Your task to perform on an android device: Go to Google Image 0: 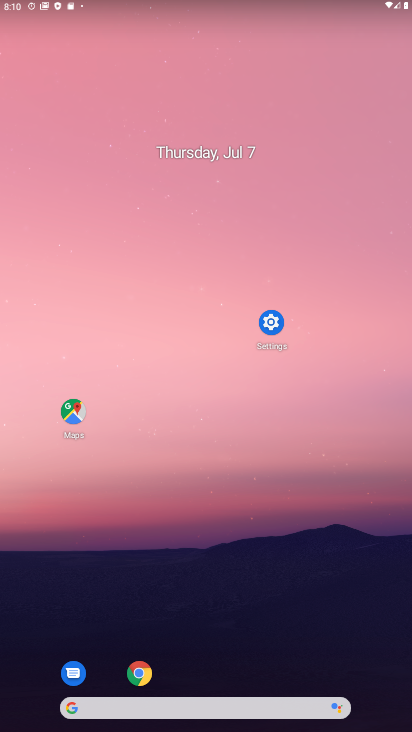
Step 0: drag from (268, 352) to (191, 149)
Your task to perform on an android device: Go to Google Image 1: 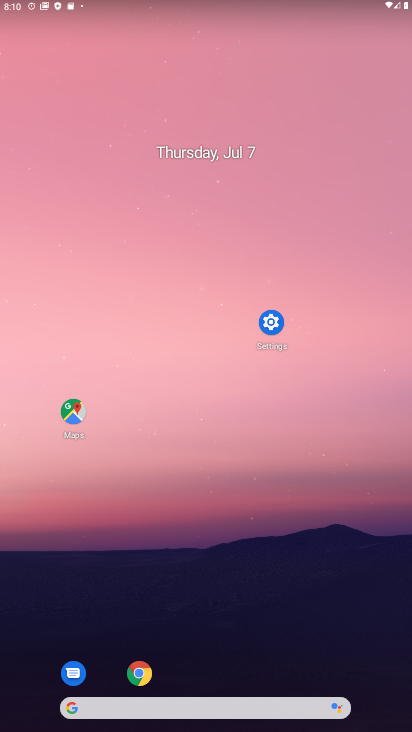
Step 1: drag from (383, 650) to (277, 31)
Your task to perform on an android device: Go to Google Image 2: 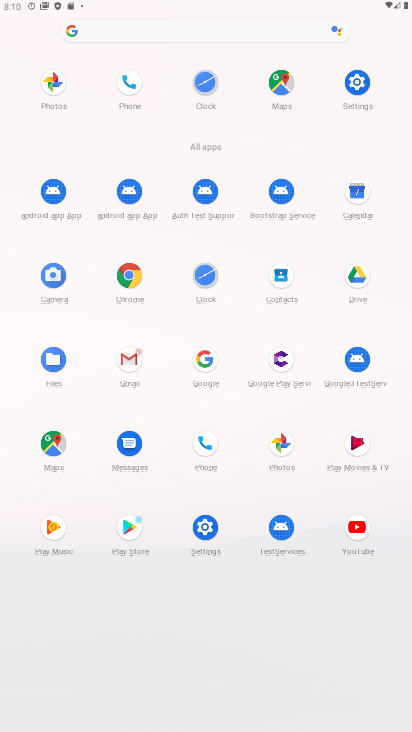
Step 2: click (216, 363)
Your task to perform on an android device: Go to Google Image 3: 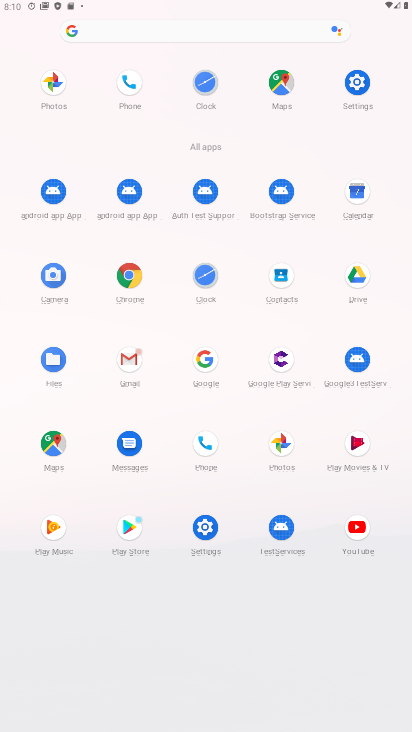
Step 3: click (195, 361)
Your task to perform on an android device: Go to Google Image 4: 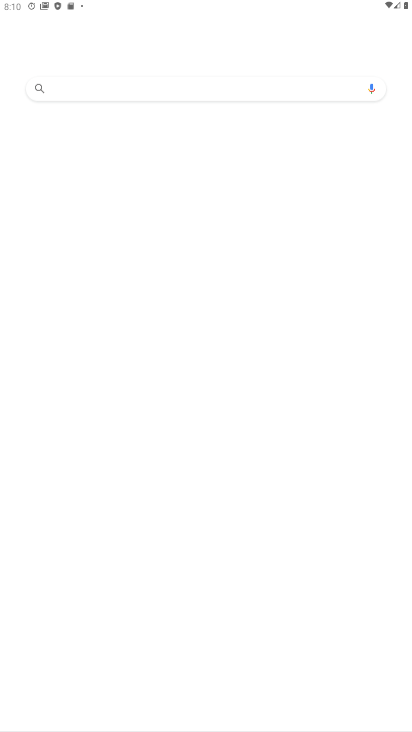
Step 4: task complete